Your task to perform on an android device: toggle airplane mode Image 0: 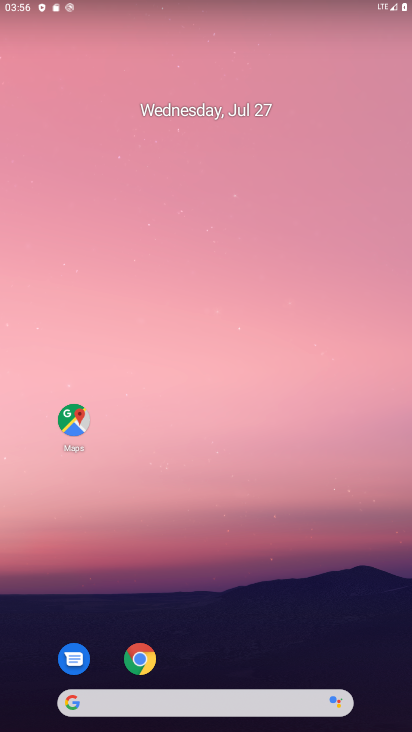
Step 0: drag from (227, 684) to (240, 133)
Your task to perform on an android device: toggle airplane mode Image 1: 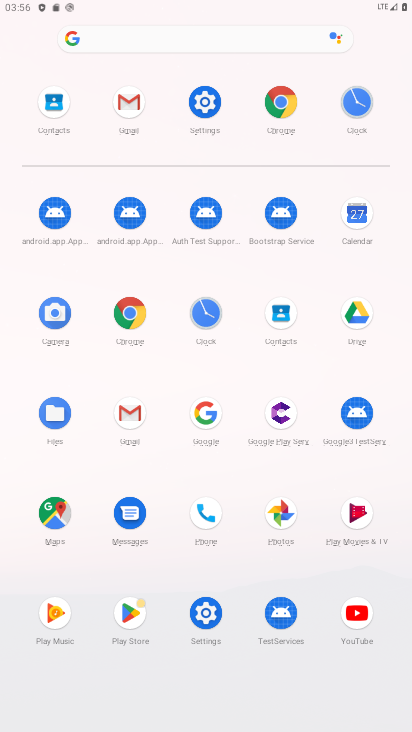
Step 1: click (199, 99)
Your task to perform on an android device: toggle airplane mode Image 2: 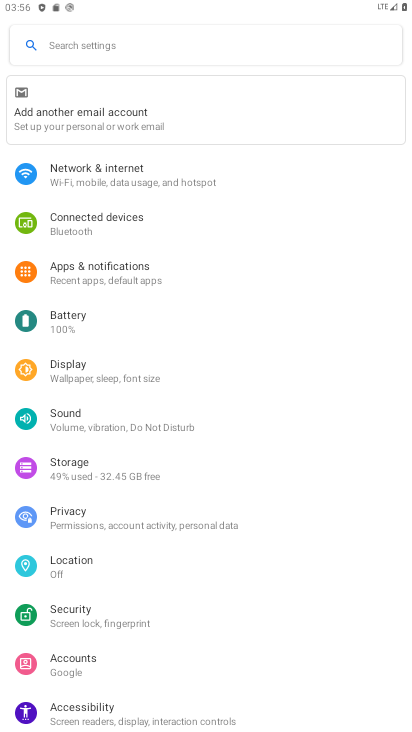
Step 2: click (69, 186)
Your task to perform on an android device: toggle airplane mode Image 3: 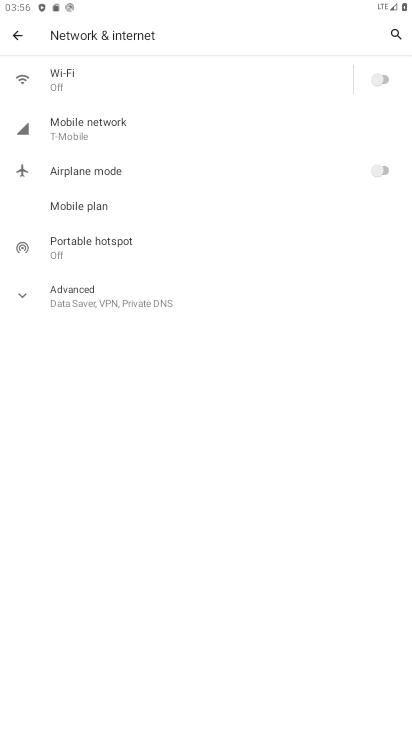
Step 3: click (391, 169)
Your task to perform on an android device: toggle airplane mode Image 4: 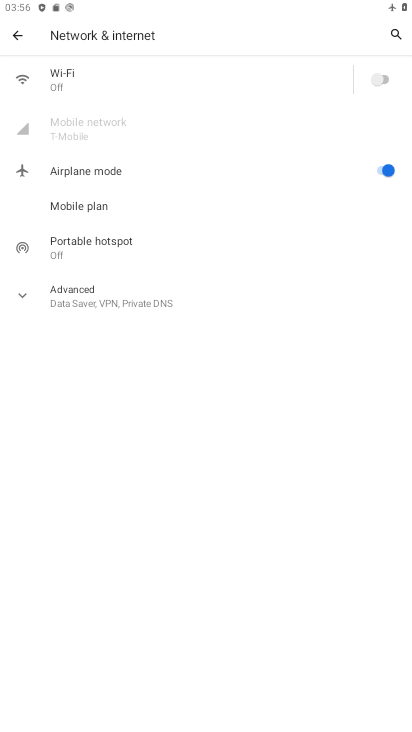
Step 4: task complete